Your task to perform on an android device: turn vacation reply on in the gmail app Image 0: 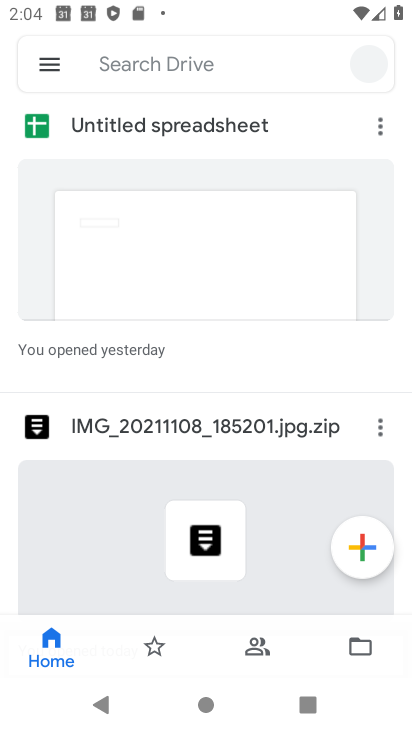
Step 0: drag from (219, 506) to (307, 104)
Your task to perform on an android device: turn vacation reply on in the gmail app Image 1: 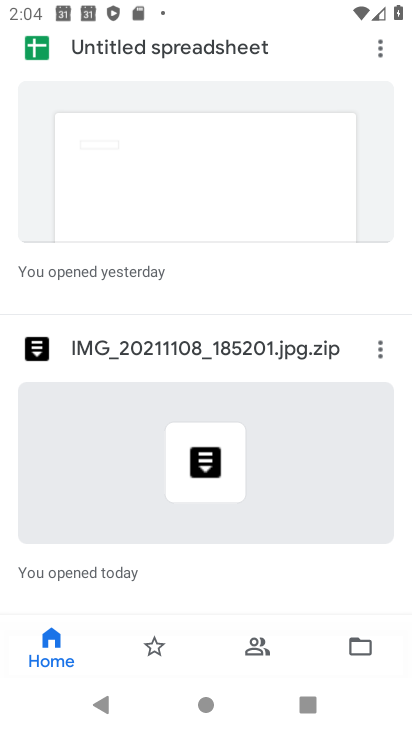
Step 1: drag from (323, 413) to (384, 121)
Your task to perform on an android device: turn vacation reply on in the gmail app Image 2: 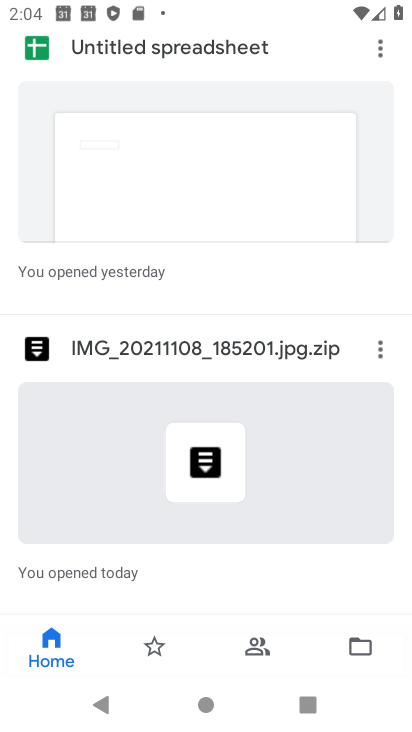
Step 2: press home button
Your task to perform on an android device: turn vacation reply on in the gmail app Image 3: 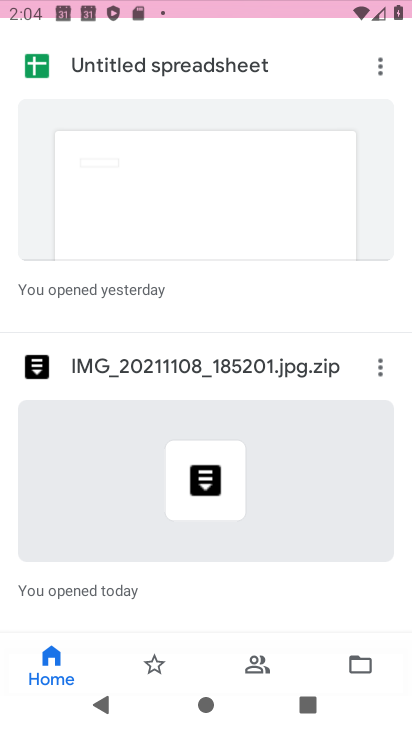
Step 3: drag from (231, 515) to (290, 25)
Your task to perform on an android device: turn vacation reply on in the gmail app Image 4: 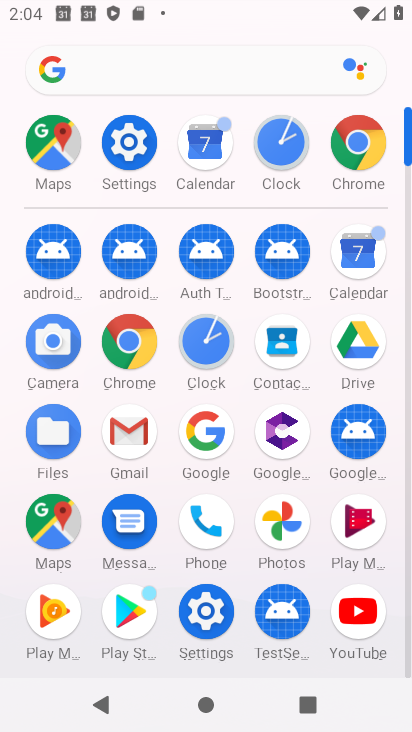
Step 4: click (123, 426)
Your task to perform on an android device: turn vacation reply on in the gmail app Image 5: 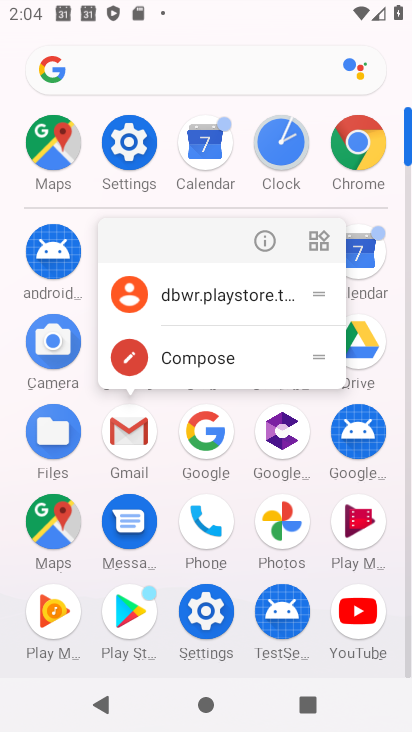
Step 5: click (256, 238)
Your task to perform on an android device: turn vacation reply on in the gmail app Image 6: 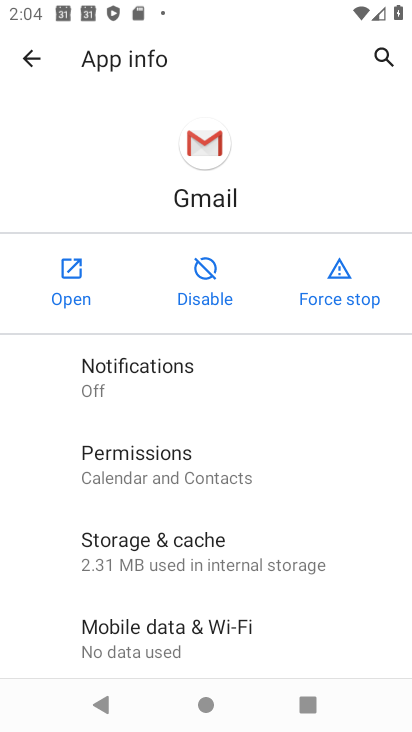
Step 6: click (104, 253)
Your task to perform on an android device: turn vacation reply on in the gmail app Image 7: 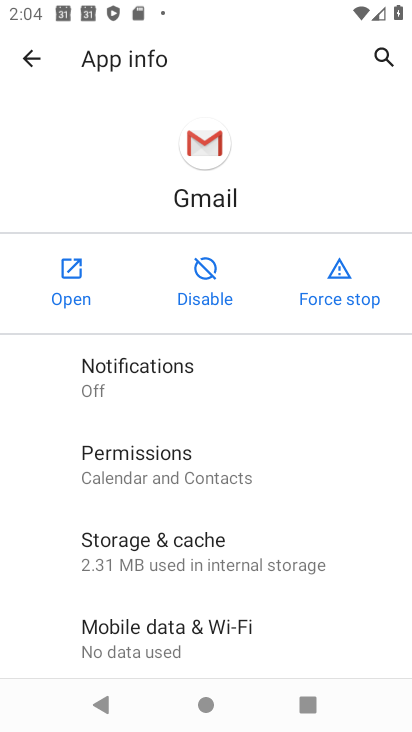
Step 7: click (97, 272)
Your task to perform on an android device: turn vacation reply on in the gmail app Image 8: 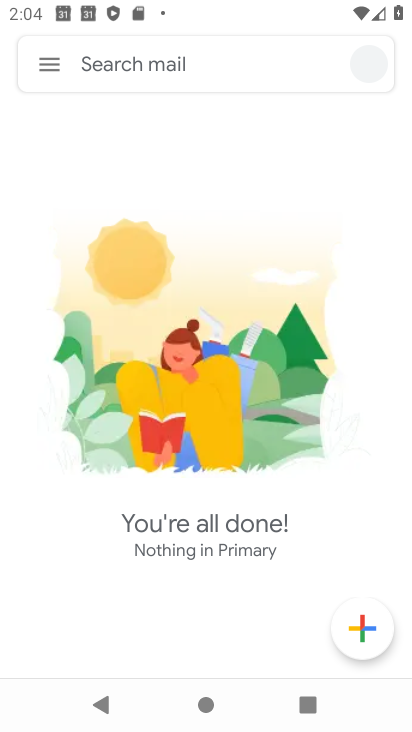
Step 8: drag from (281, 380) to (315, 118)
Your task to perform on an android device: turn vacation reply on in the gmail app Image 9: 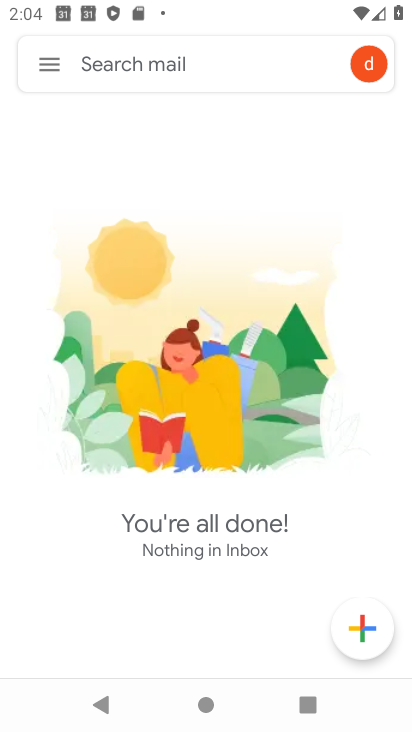
Step 9: click (54, 67)
Your task to perform on an android device: turn vacation reply on in the gmail app Image 10: 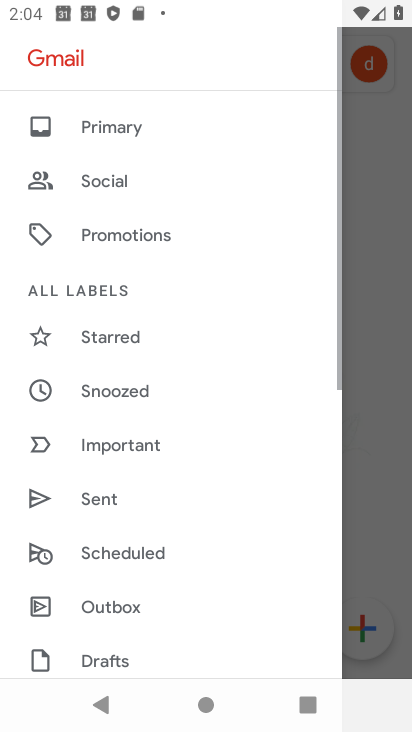
Step 10: drag from (129, 520) to (192, 45)
Your task to perform on an android device: turn vacation reply on in the gmail app Image 11: 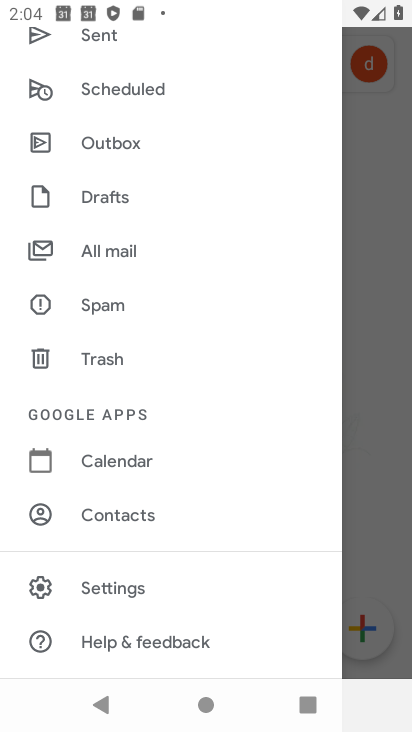
Step 11: click (138, 588)
Your task to perform on an android device: turn vacation reply on in the gmail app Image 12: 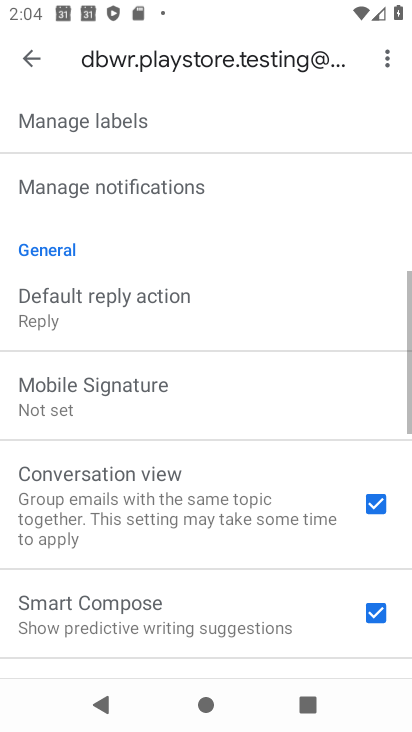
Step 12: drag from (86, 441) to (282, 12)
Your task to perform on an android device: turn vacation reply on in the gmail app Image 13: 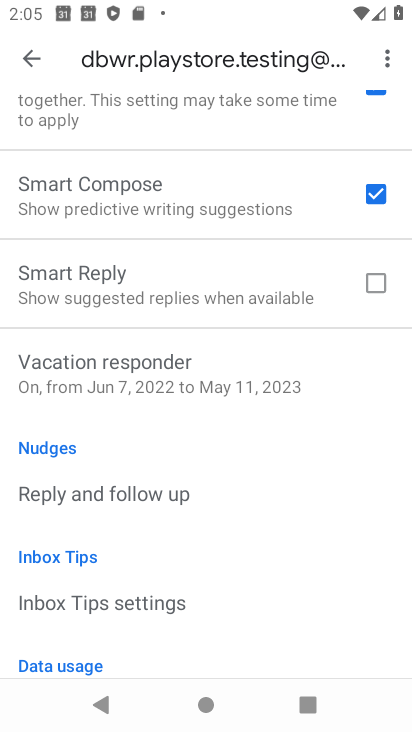
Step 13: click (182, 351)
Your task to perform on an android device: turn vacation reply on in the gmail app Image 14: 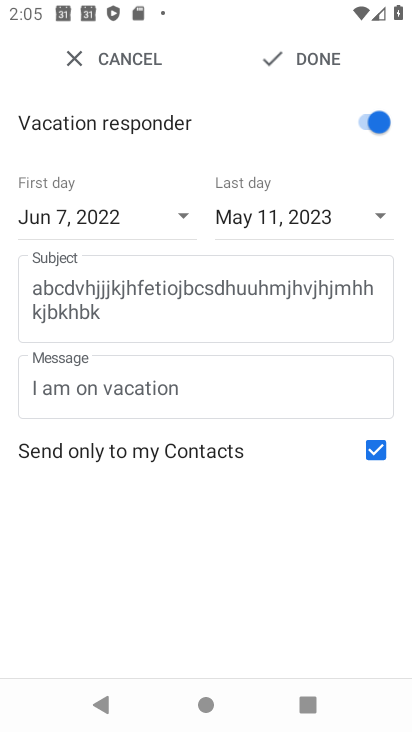
Step 14: click (270, 68)
Your task to perform on an android device: turn vacation reply on in the gmail app Image 15: 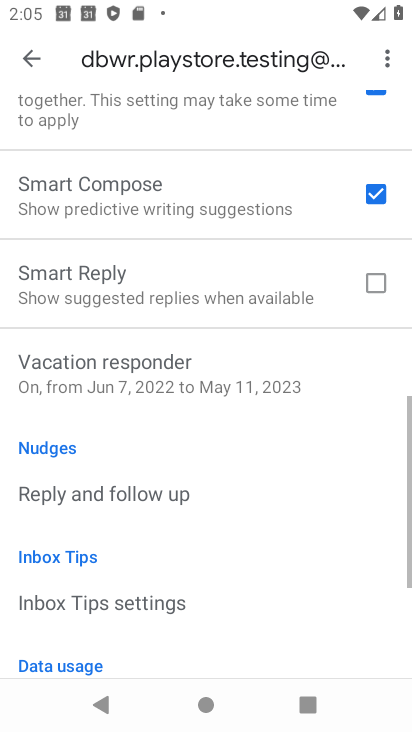
Step 15: task complete